Your task to perform on an android device: Go to privacy settings Image 0: 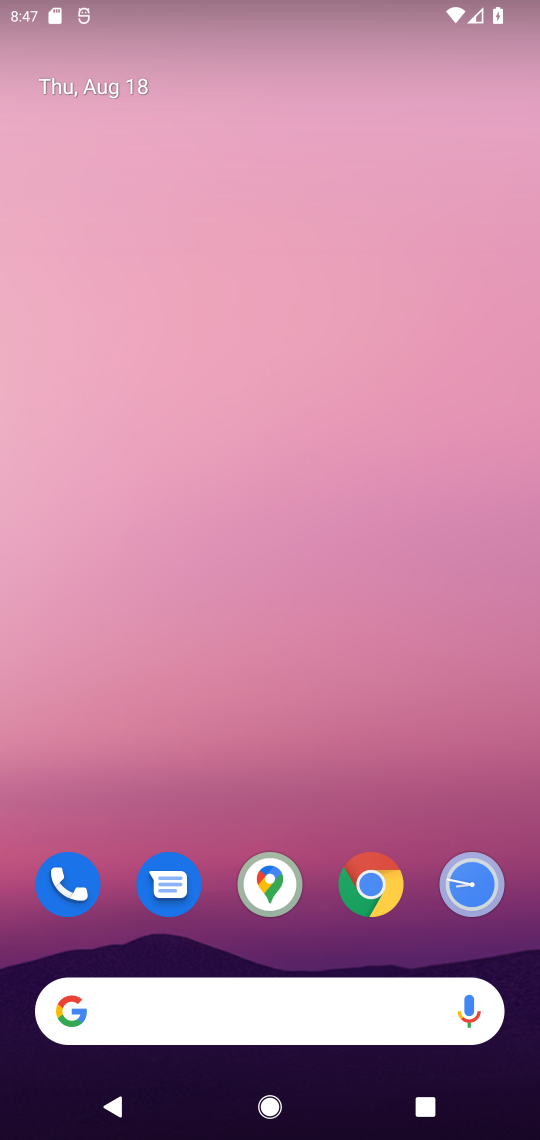
Step 0: drag from (227, 955) to (246, 151)
Your task to perform on an android device: Go to privacy settings Image 1: 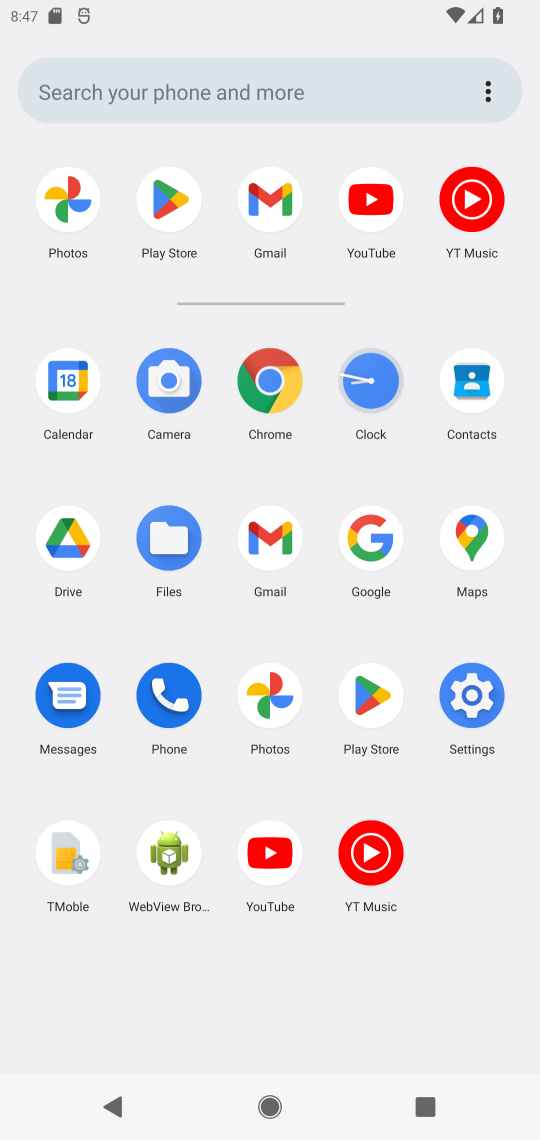
Step 1: drag from (412, 411) to (338, 234)
Your task to perform on an android device: Go to privacy settings Image 2: 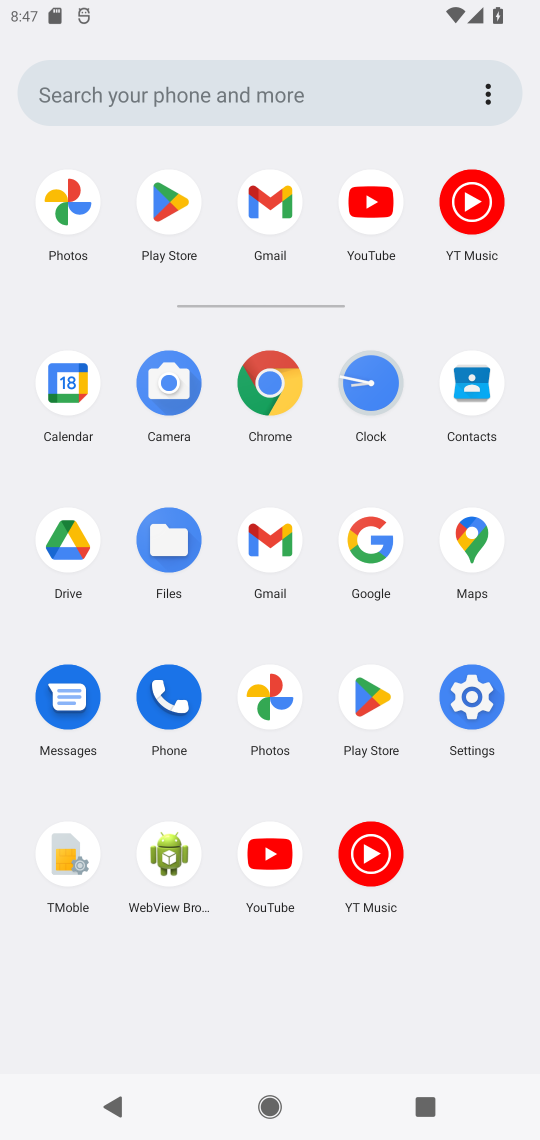
Step 2: click (451, 684)
Your task to perform on an android device: Go to privacy settings Image 3: 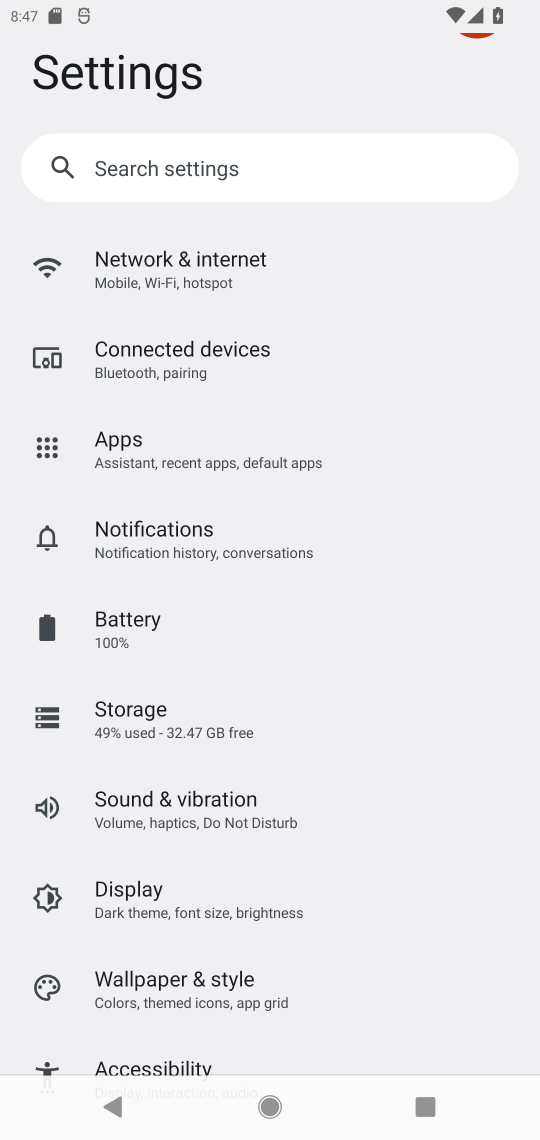
Step 3: drag from (155, 1020) to (265, 326)
Your task to perform on an android device: Go to privacy settings Image 4: 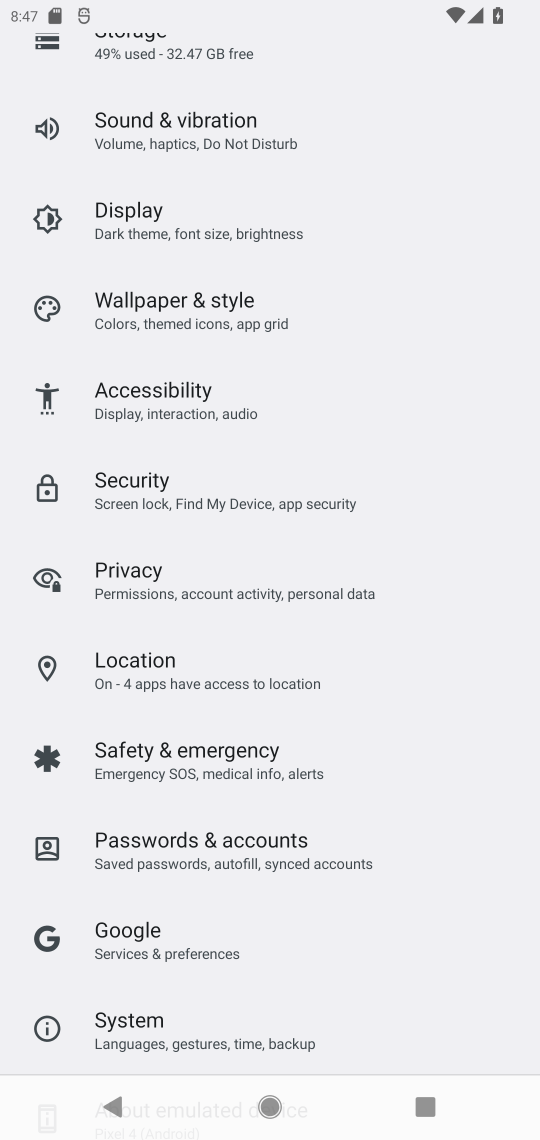
Step 4: click (163, 588)
Your task to perform on an android device: Go to privacy settings Image 5: 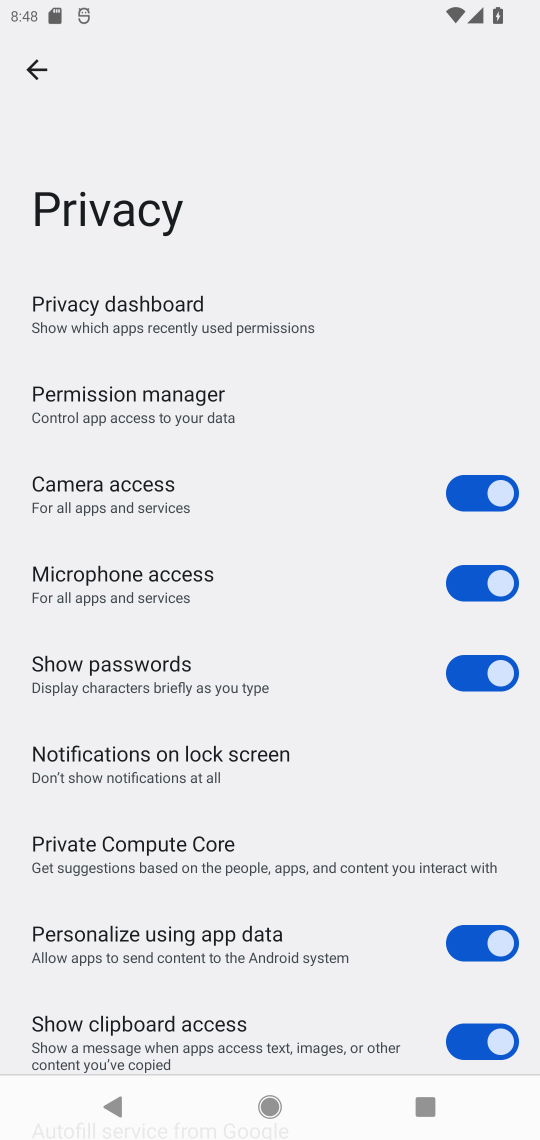
Step 5: task complete